Your task to perform on an android device: Open accessibility settings Image 0: 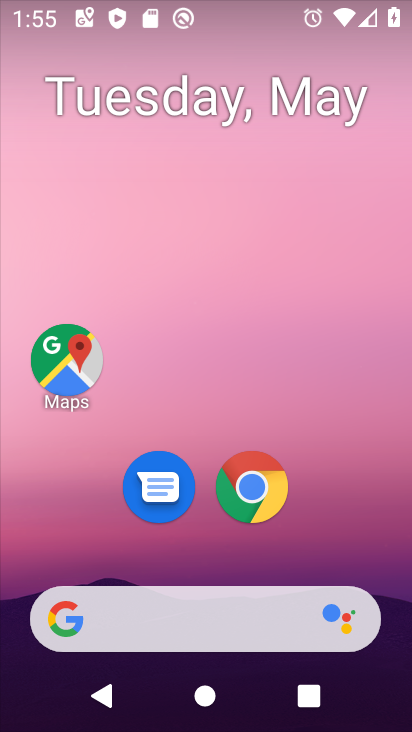
Step 0: drag from (377, 546) to (384, 119)
Your task to perform on an android device: Open accessibility settings Image 1: 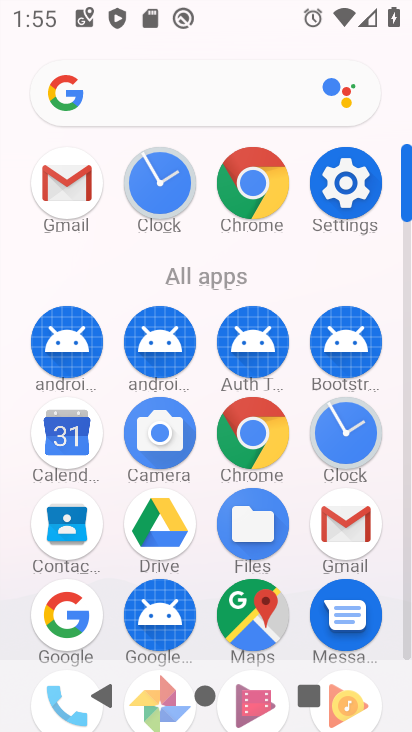
Step 1: click (350, 199)
Your task to perform on an android device: Open accessibility settings Image 2: 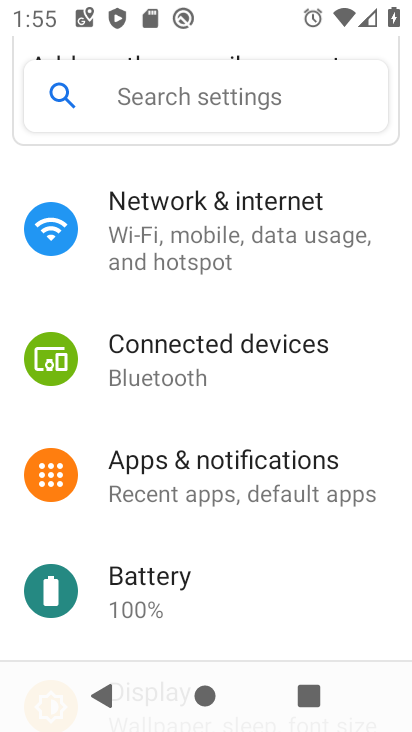
Step 2: drag from (372, 572) to (372, 426)
Your task to perform on an android device: Open accessibility settings Image 3: 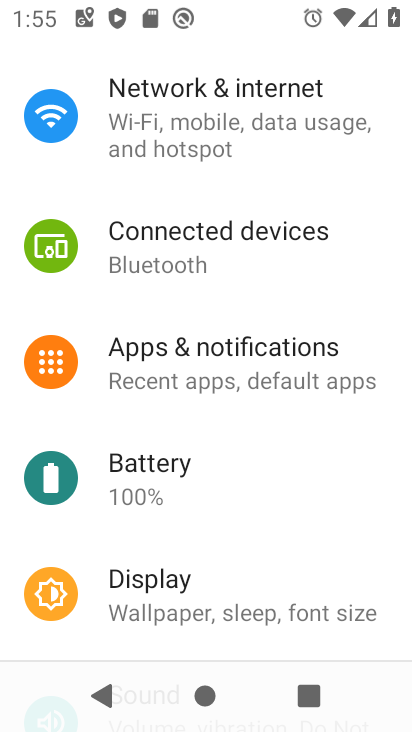
Step 3: drag from (354, 547) to (361, 431)
Your task to perform on an android device: Open accessibility settings Image 4: 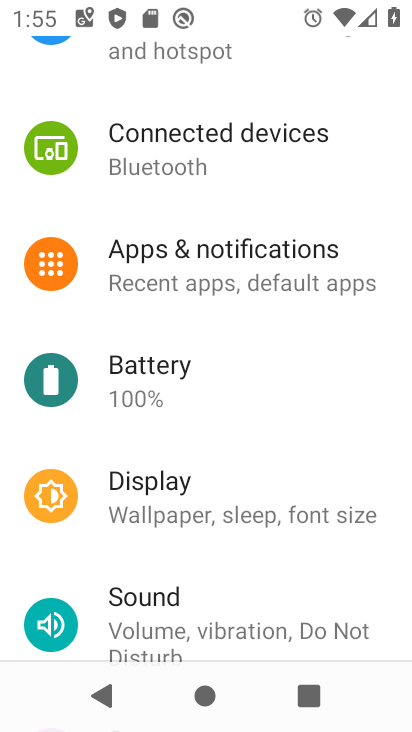
Step 4: drag from (366, 597) to (380, 425)
Your task to perform on an android device: Open accessibility settings Image 5: 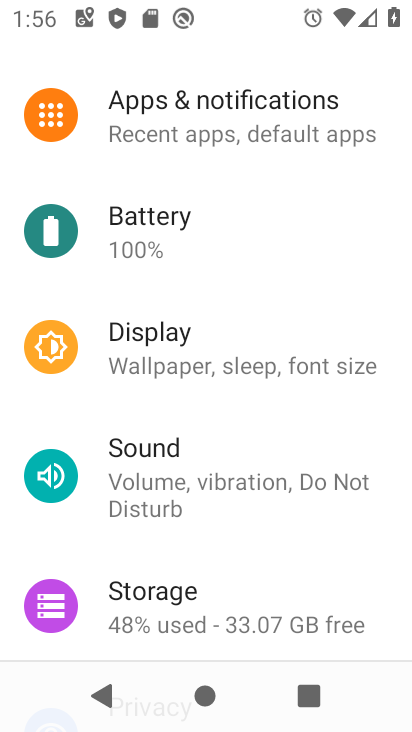
Step 5: drag from (373, 590) to (376, 459)
Your task to perform on an android device: Open accessibility settings Image 6: 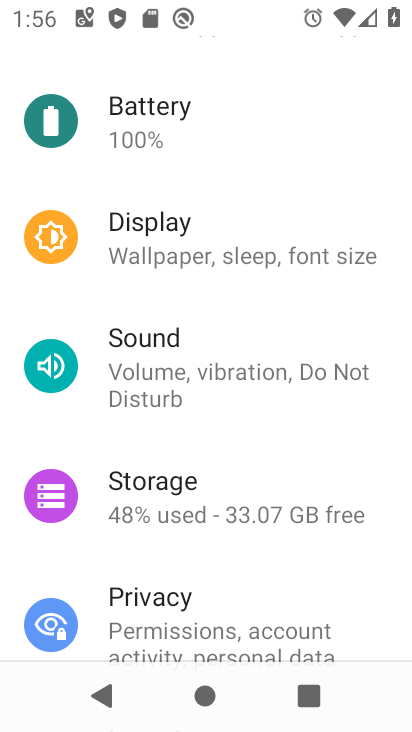
Step 6: drag from (359, 613) to (359, 419)
Your task to perform on an android device: Open accessibility settings Image 7: 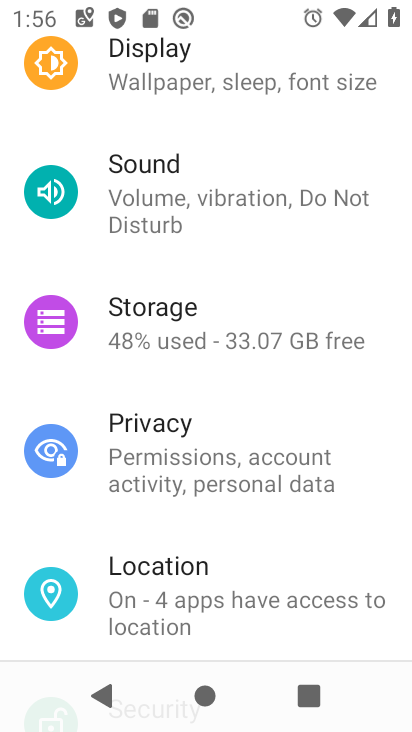
Step 7: drag from (350, 628) to (370, 438)
Your task to perform on an android device: Open accessibility settings Image 8: 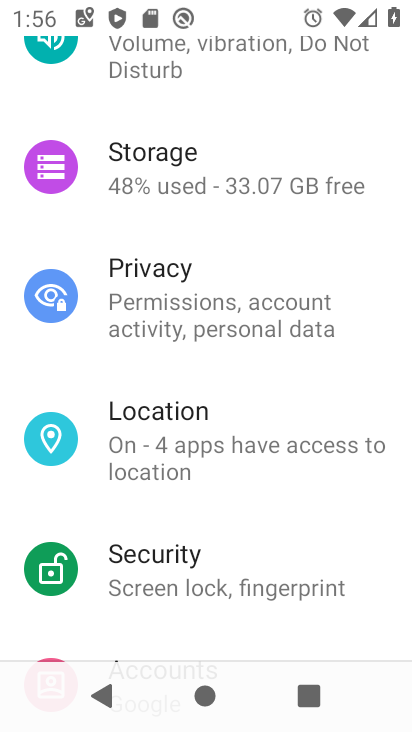
Step 8: drag from (379, 624) to (371, 420)
Your task to perform on an android device: Open accessibility settings Image 9: 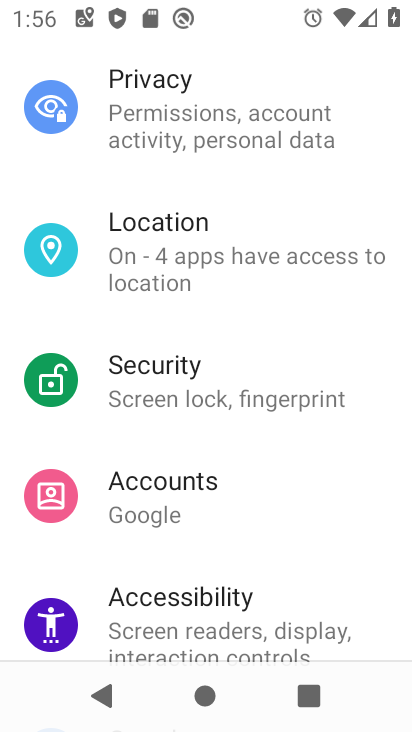
Step 9: drag from (338, 594) to (341, 418)
Your task to perform on an android device: Open accessibility settings Image 10: 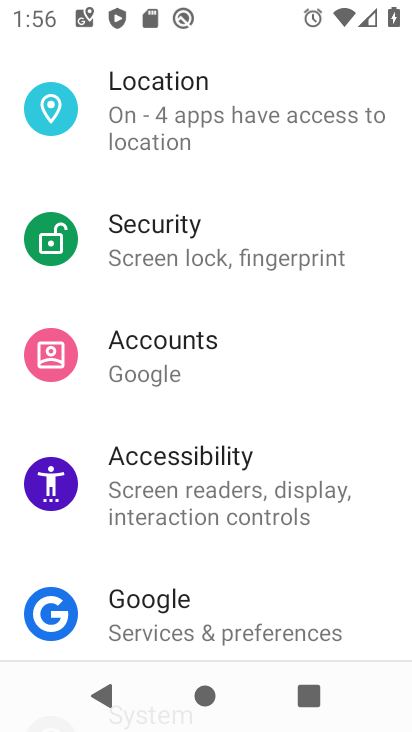
Step 10: click (254, 488)
Your task to perform on an android device: Open accessibility settings Image 11: 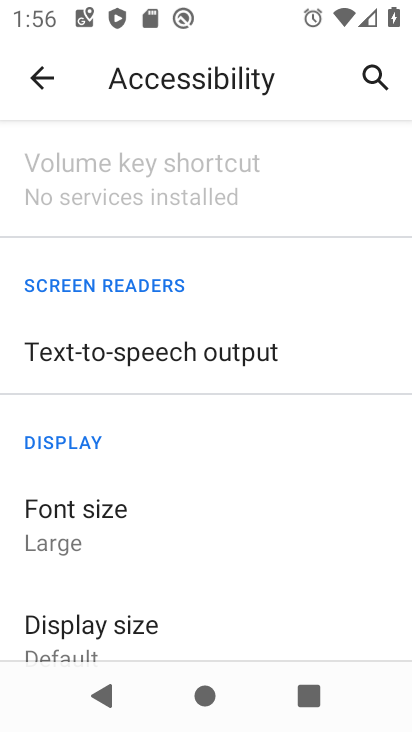
Step 11: task complete